Your task to perform on an android device: Open Google Image 0: 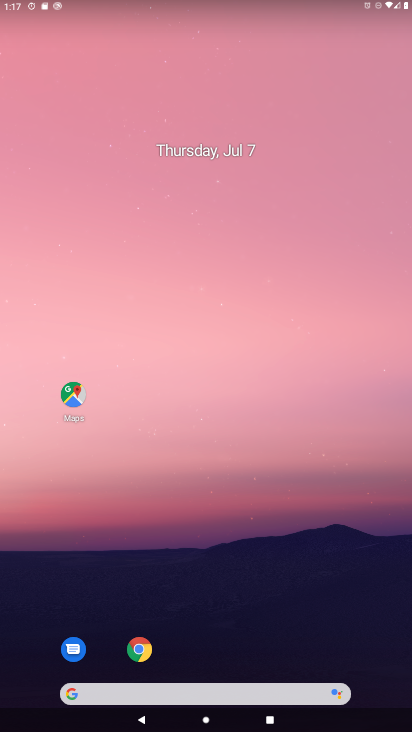
Step 0: click (218, 681)
Your task to perform on an android device: Open Google Image 1: 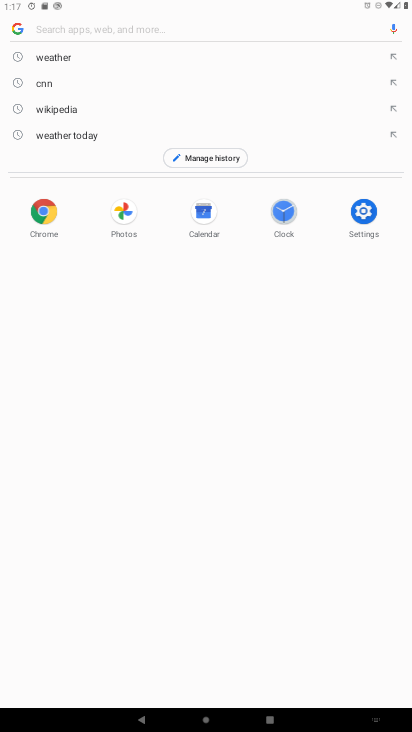
Step 1: task complete